Your task to perform on an android device: Open internet settings Image 0: 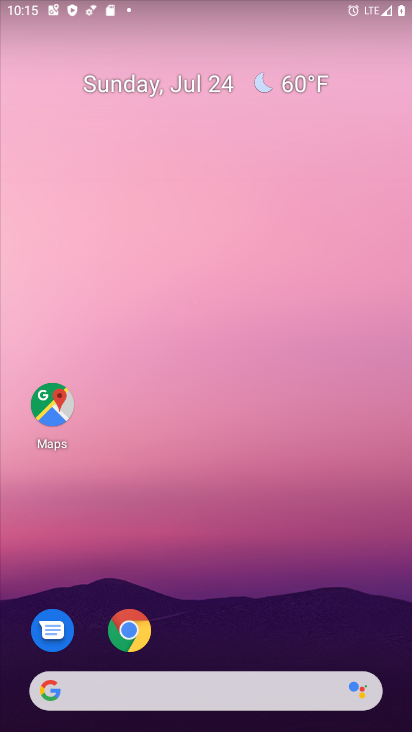
Step 0: drag from (256, 650) to (173, 6)
Your task to perform on an android device: Open internet settings Image 1: 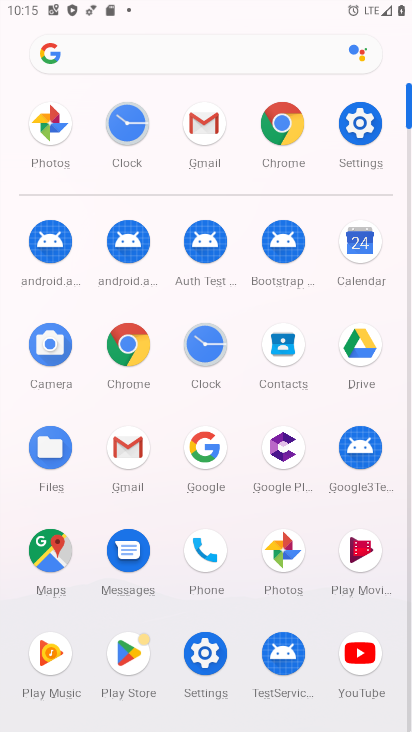
Step 1: click (202, 673)
Your task to perform on an android device: Open internet settings Image 2: 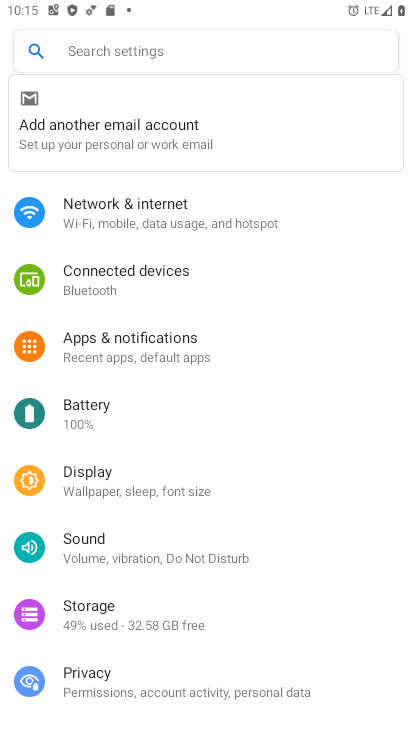
Step 2: click (150, 214)
Your task to perform on an android device: Open internet settings Image 3: 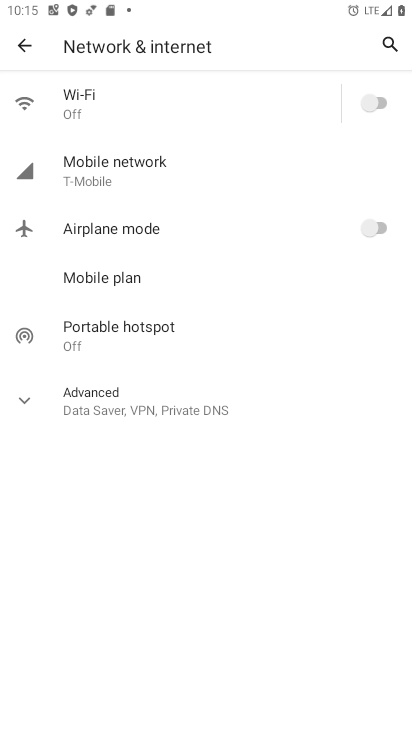
Step 3: task complete